Your task to perform on an android device: Is it going to rain today? Image 0: 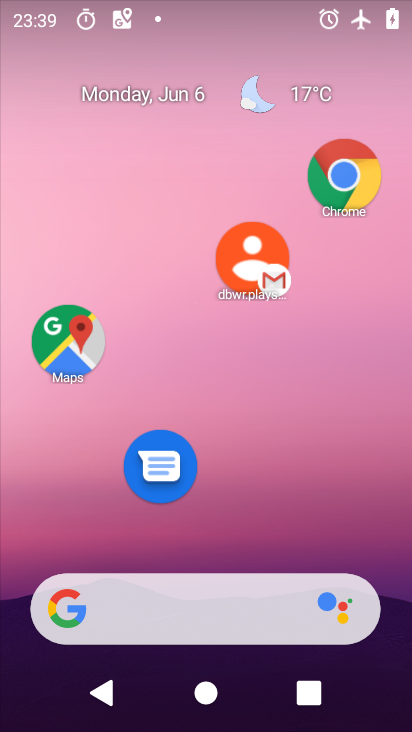
Step 0: drag from (201, 512) to (297, 115)
Your task to perform on an android device: Is it going to rain today? Image 1: 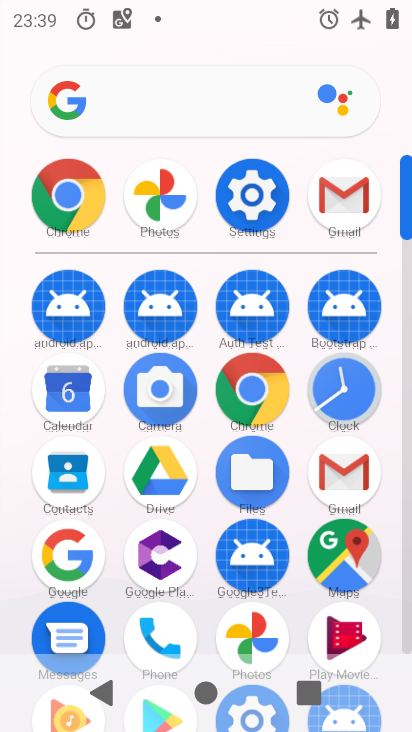
Step 1: click (209, 84)
Your task to perform on an android device: Is it going to rain today? Image 2: 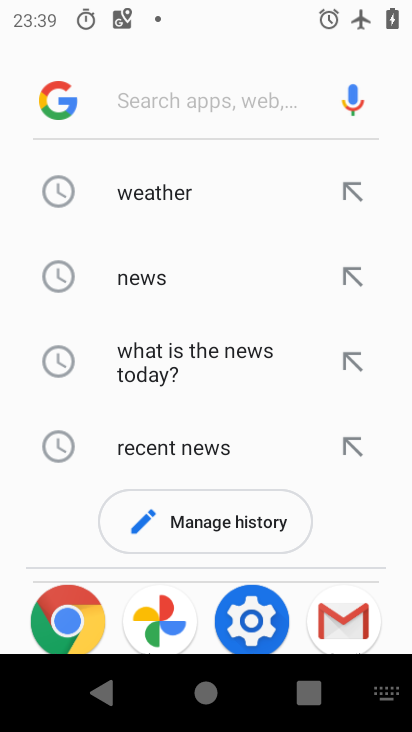
Step 2: type "rain today"
Your task to perform on an android device: Is it going to rain today? Image 3: 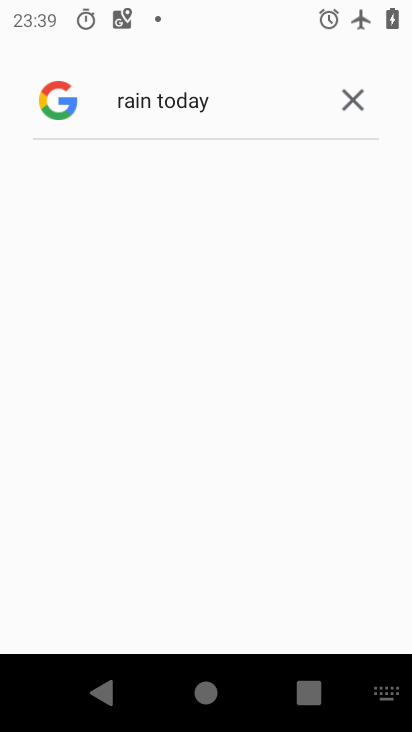
Step 3: drag from (291, 356) to (329, 162)
Your task to perform on an android device: Is it going to rain today? Image 4: 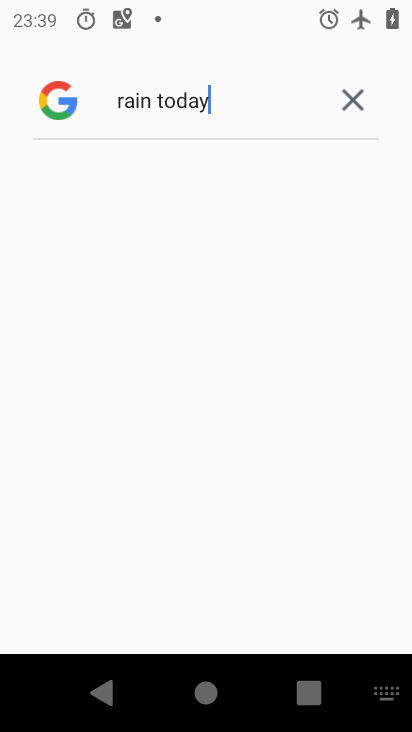
Step 4: click (110, 227)
Your task to perform on an android device: Is it going to rain today? Image 5: 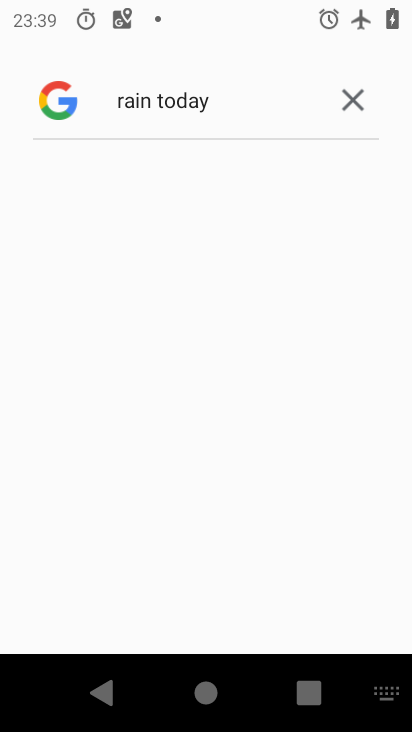
Step 5: task complete